Your task to perform on an android device: Is it going to rain tomorrow? Image 0: 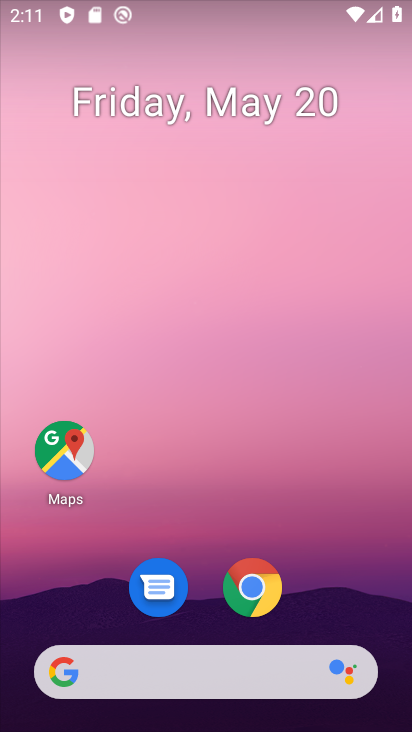
Step 0: click (236, 667)
Your task to perform on an android device: Is it going to rain tomorrow? Image 1: 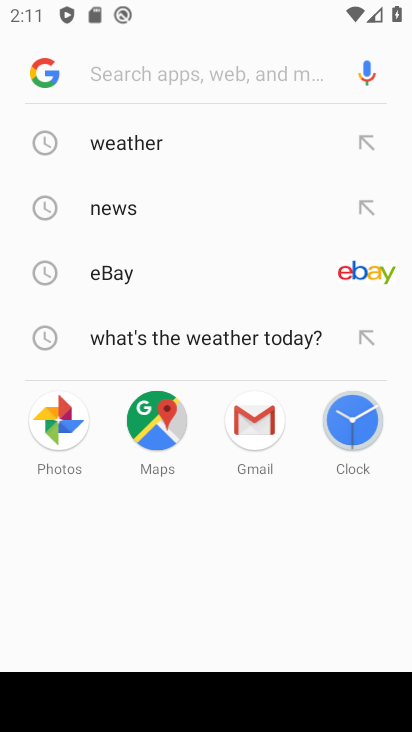
Step 1: click (204, 145)
Your task to perform on an android device: Is it going to rain tomorrow? Image 2: 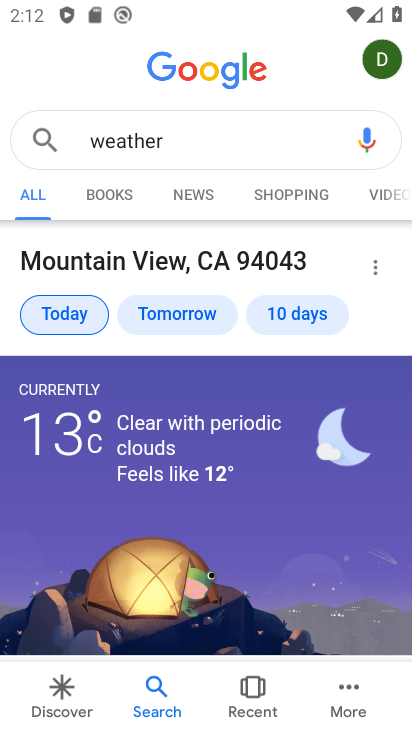
Step 2: click (176, 310)
Your task to perform on an android device: Is it going to rain tomorrow? Image 3: 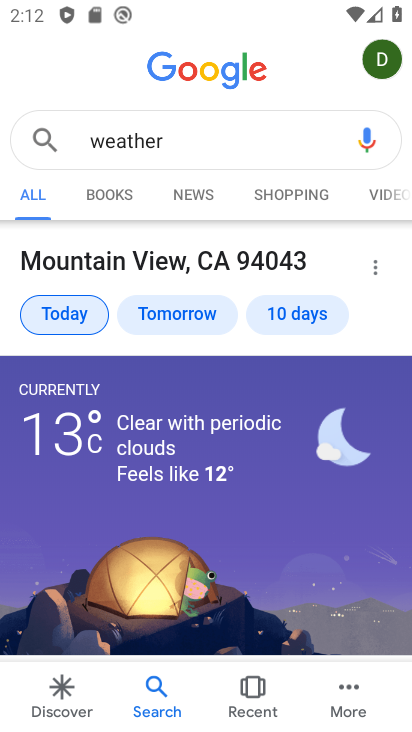
Step 3: click (173, 310)
Your task to perform on an android device: Is it going to rain tomorrow? Image 4: 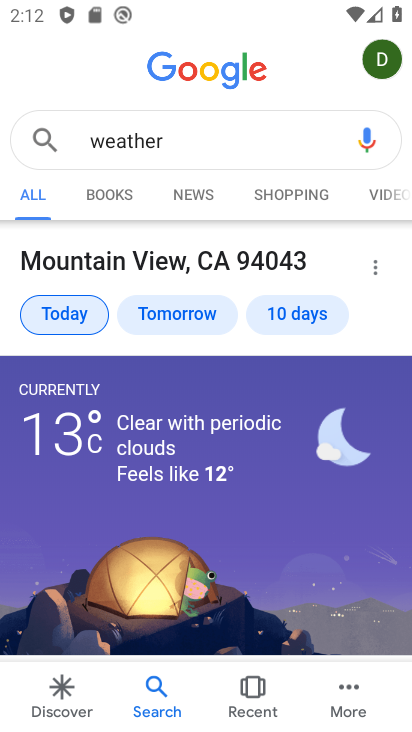
Step 4: drag from (227, 516) to (228, 376)
Your task to perform on an android device: Is it going to rain tomorrow? Image 5: 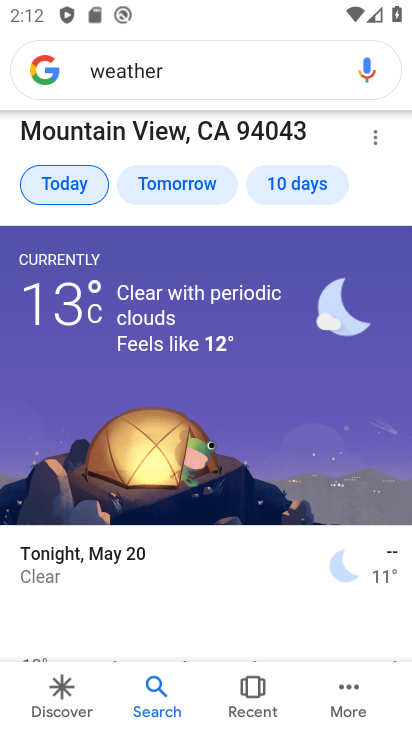
Step 5: click (196, 181)
Your task to perform on an android device: Is it going to rain tomorrow? Image 6: 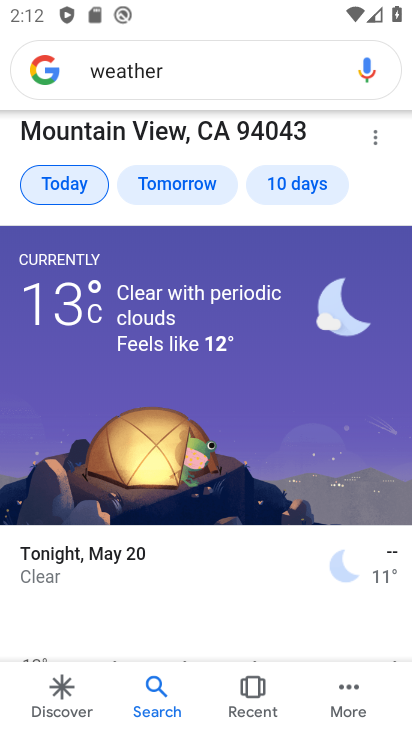
Step 6: click (195, 180)
Your task to perform on an android device: Is it going to rain tomorrow? Image 7: 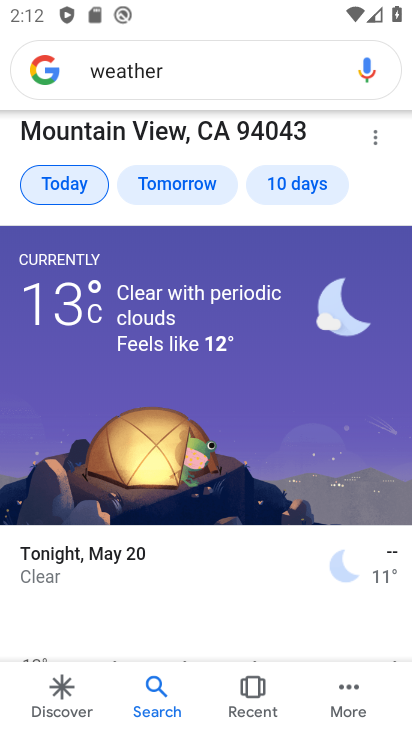
Step 7: click (194, 181)
Your task to perform on an android device: Is it going to rain tomorrow? Image 8: 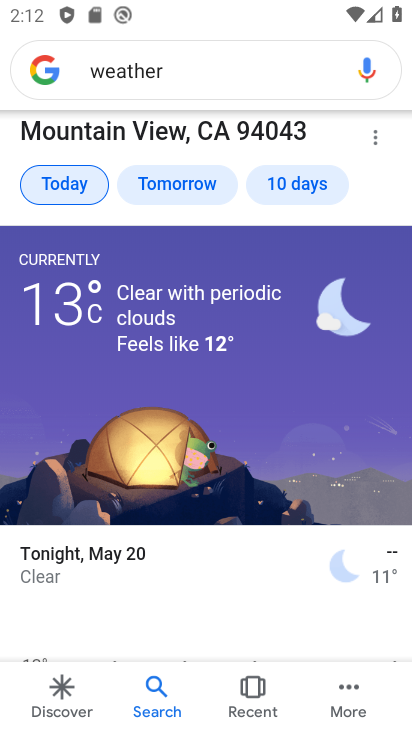
Step 8: click (310, 183)
Your task to perform on an android device: Is it going to rain tomorrow? Image 9: 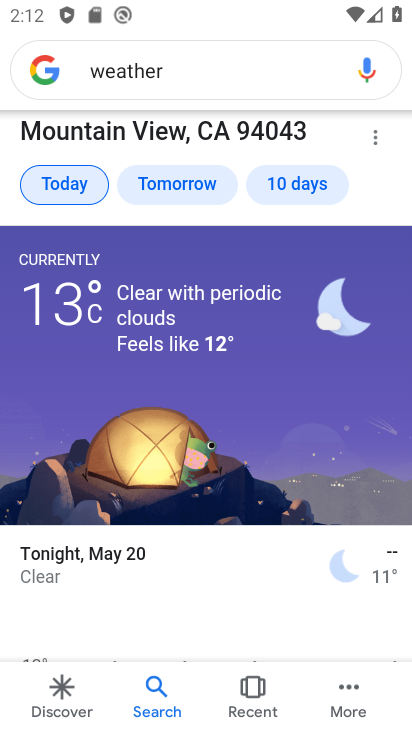
Step 9: click (310, 183)
Your task to perform on an android device: Is it going to rain tomorrow? Image 10: 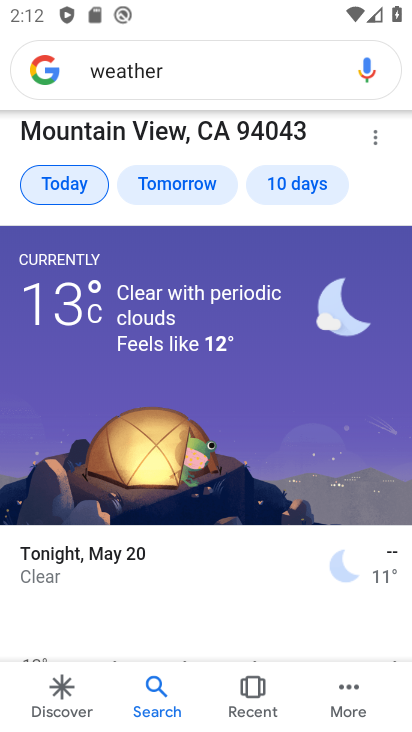
Step 10: click (310, 183)
Your task to perform on an android device: Is it going to rain tomorrow? Image 11: 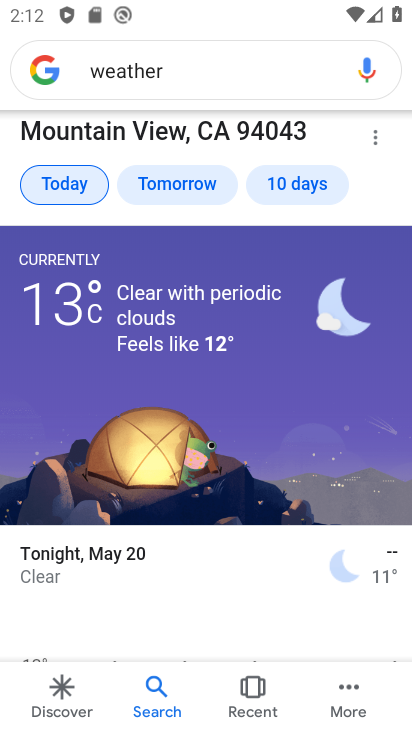
Step 11: click (297, 182)
Your task to perform on an android device: Is it going to rain tomorrow? Image 12: 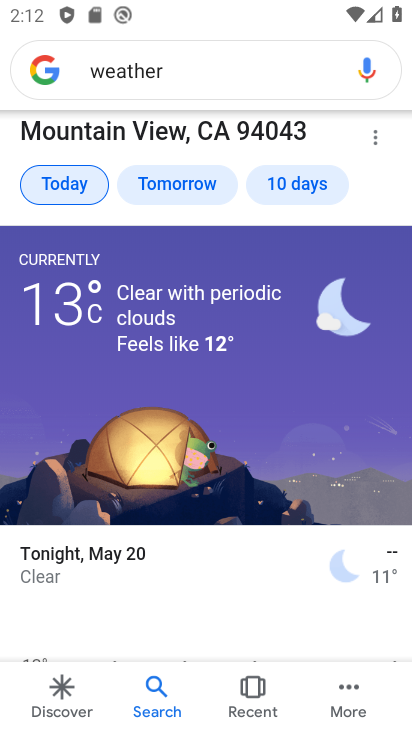
Step 12: task complete